Your task to perform on an android device: star an email in the gmail app Image 0: 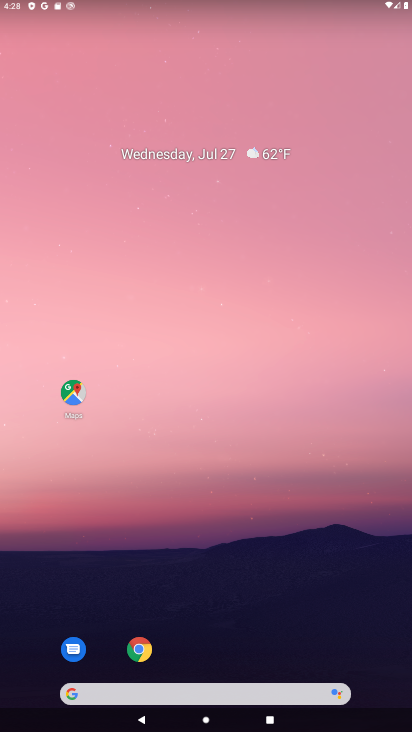
Step 0: drag from (300, 573) to (337, 74)
Your task to perform on an android device: star an email in the gmail app Image 1: 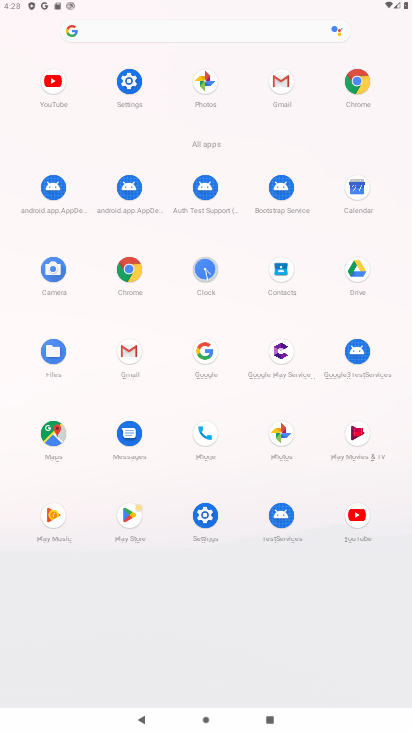
Step 1: click (134, 350)
Your task to perform on an android device: star an email in the gmail app Image 2: 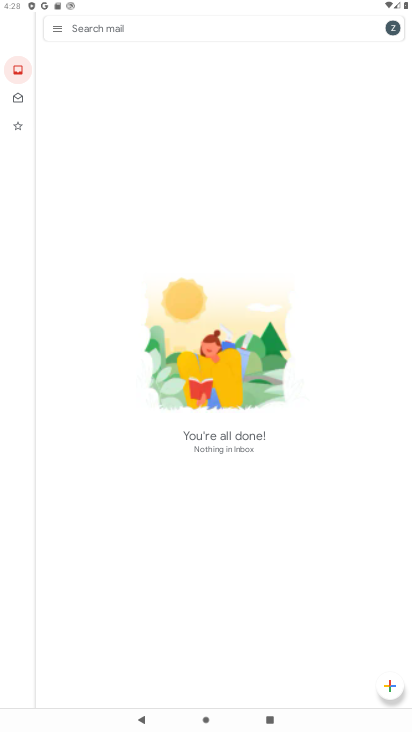
Step 2: click (57, 21)
Your task to perform on an android device: star an email in the gmail app Image 3: 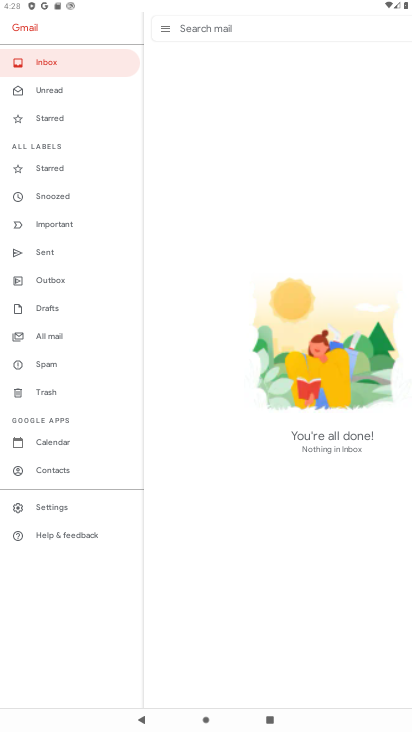
Step 3: click (42, 116)
Your task to perform on an android device: star an email in the gmail app Image 4: 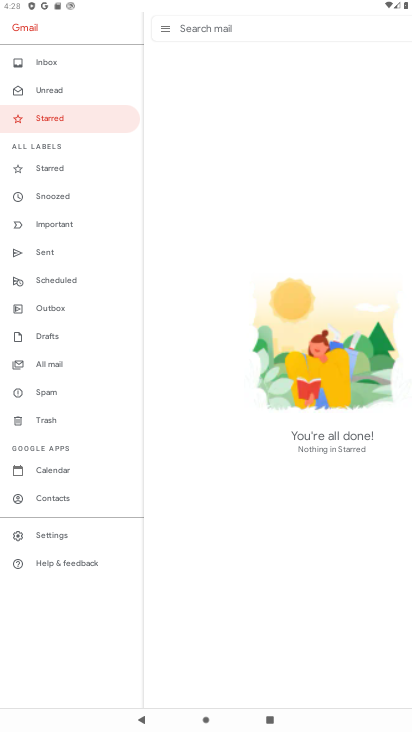
Step 4: click (42, 116)
Your task to perform on an android device: star an email in the gmail app Image 5: 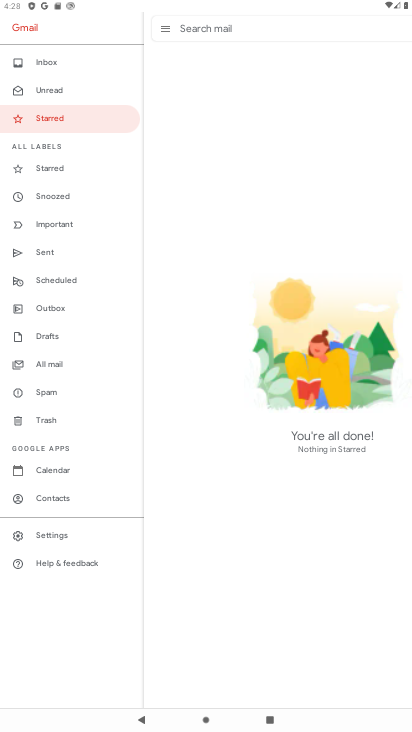
Step 5: task complete